Your task to perform on an android device: Clear the cart on target.com. Add alienware area 51 to the cart on target.com Image 0: 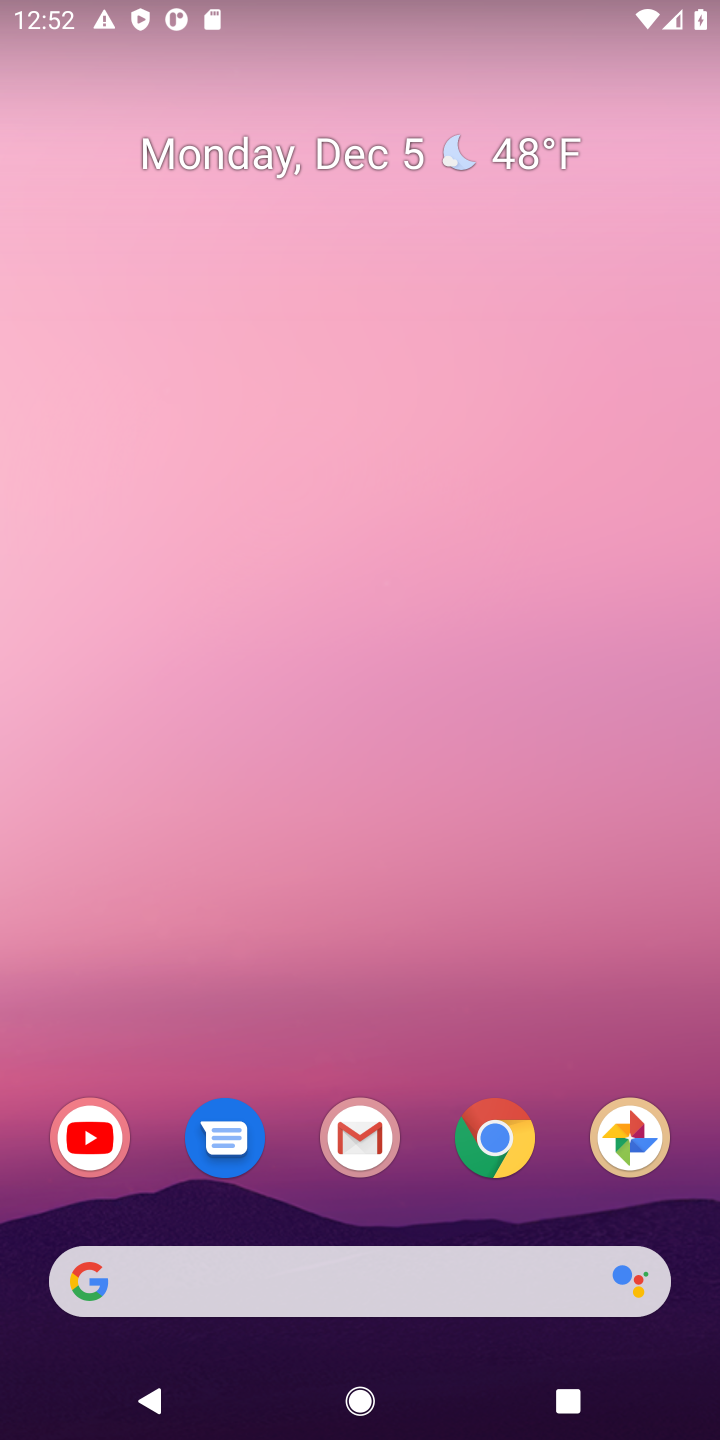
Step 0: click (504, 1159)
Your task to perform on an android device: Clear the cart on target.com. Add alienware area 51 to the cart on target.com Image 1: 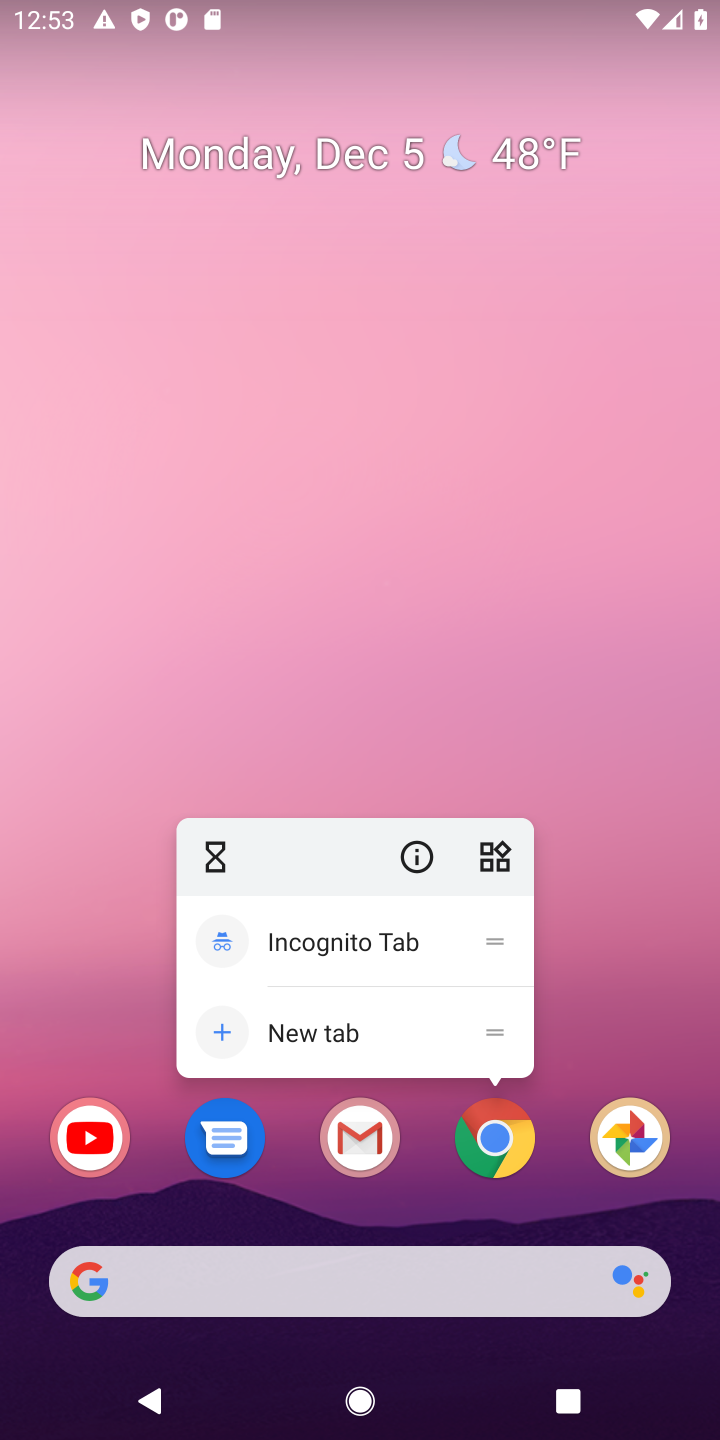
Step 1: click (493, 1150)
Your task to perform on an android device: Clear the cart on target.com. Add alienware area 51 to the cart on target.com Image 2: 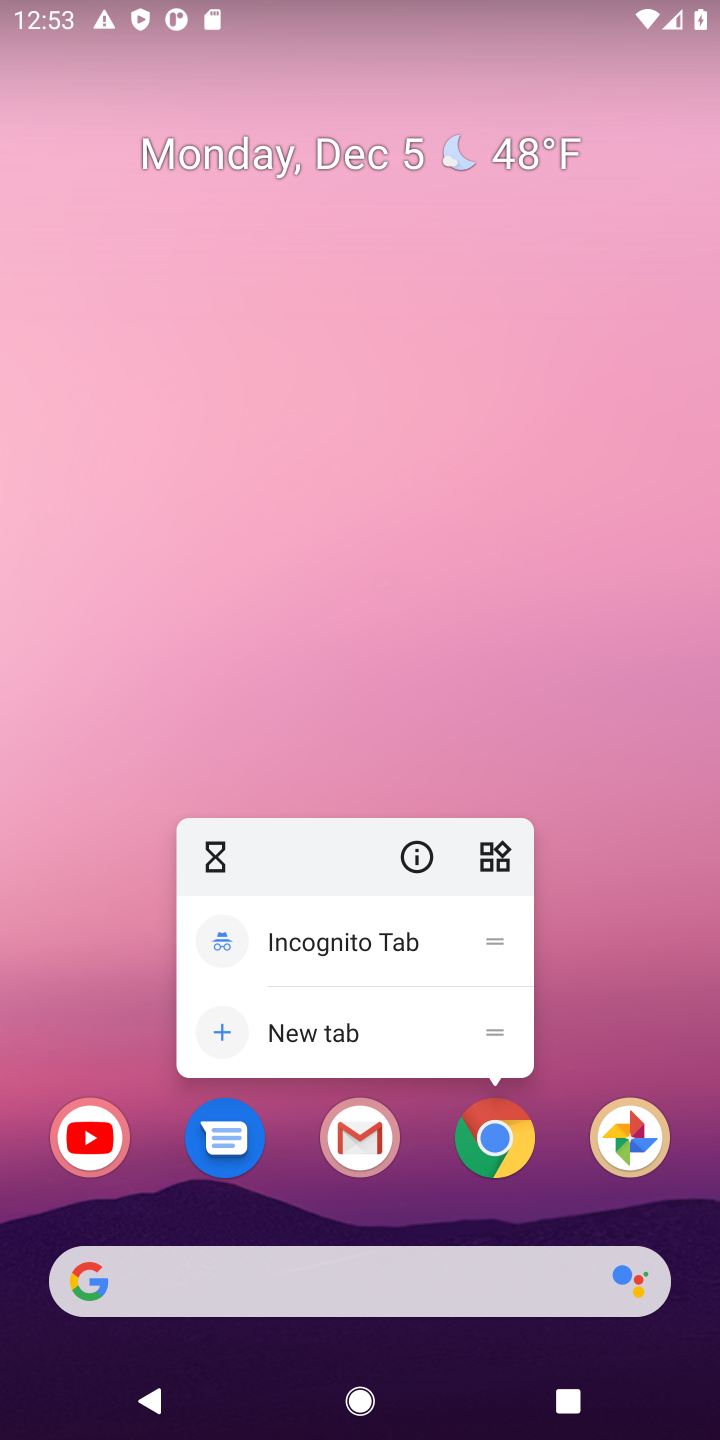
Step 2: click (495, 1115)
Your task to perform on an android device: Clear the cart on target.com. Add alienware area 51 to the cart on target.com Image 3: 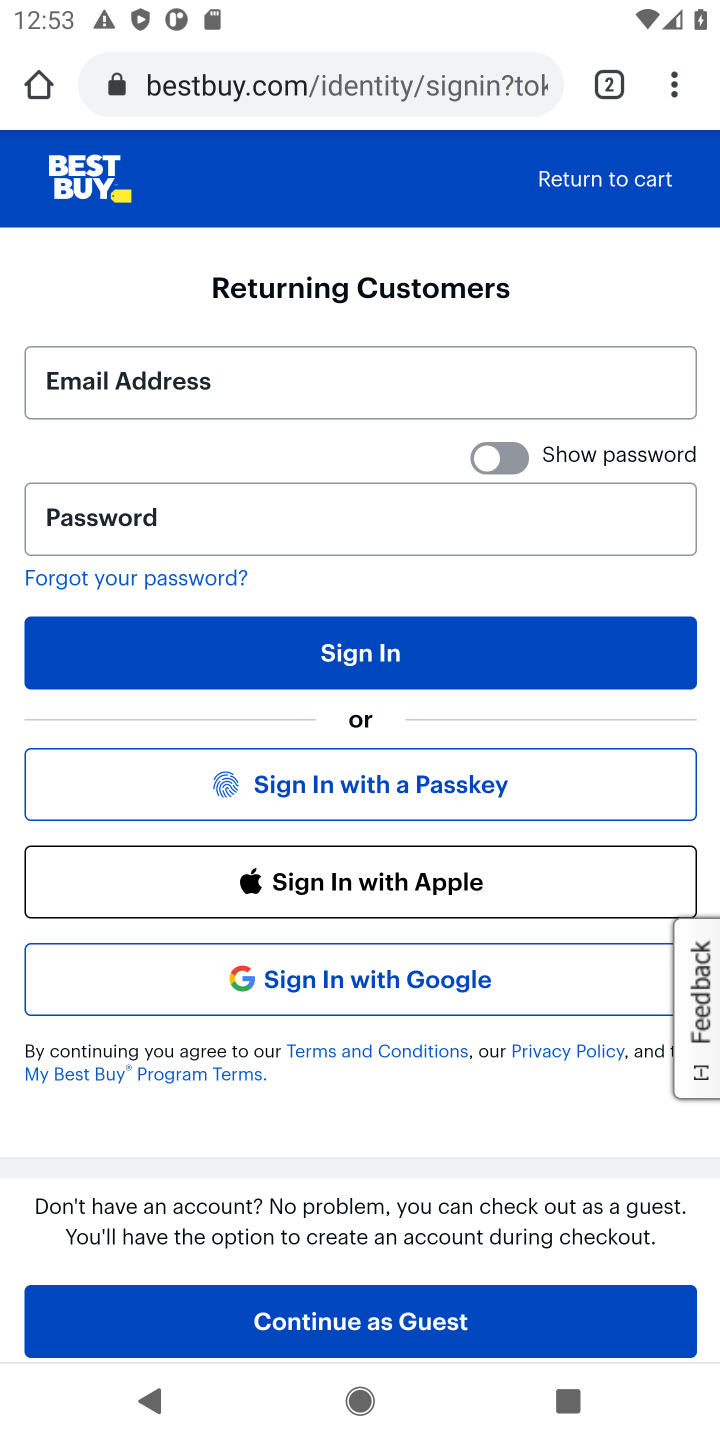
Step 3: click (398, 92)
Your task to perform on an android device: Clear the cart on target.com. Add alienware area 51 to the cart on target.com Image 4: 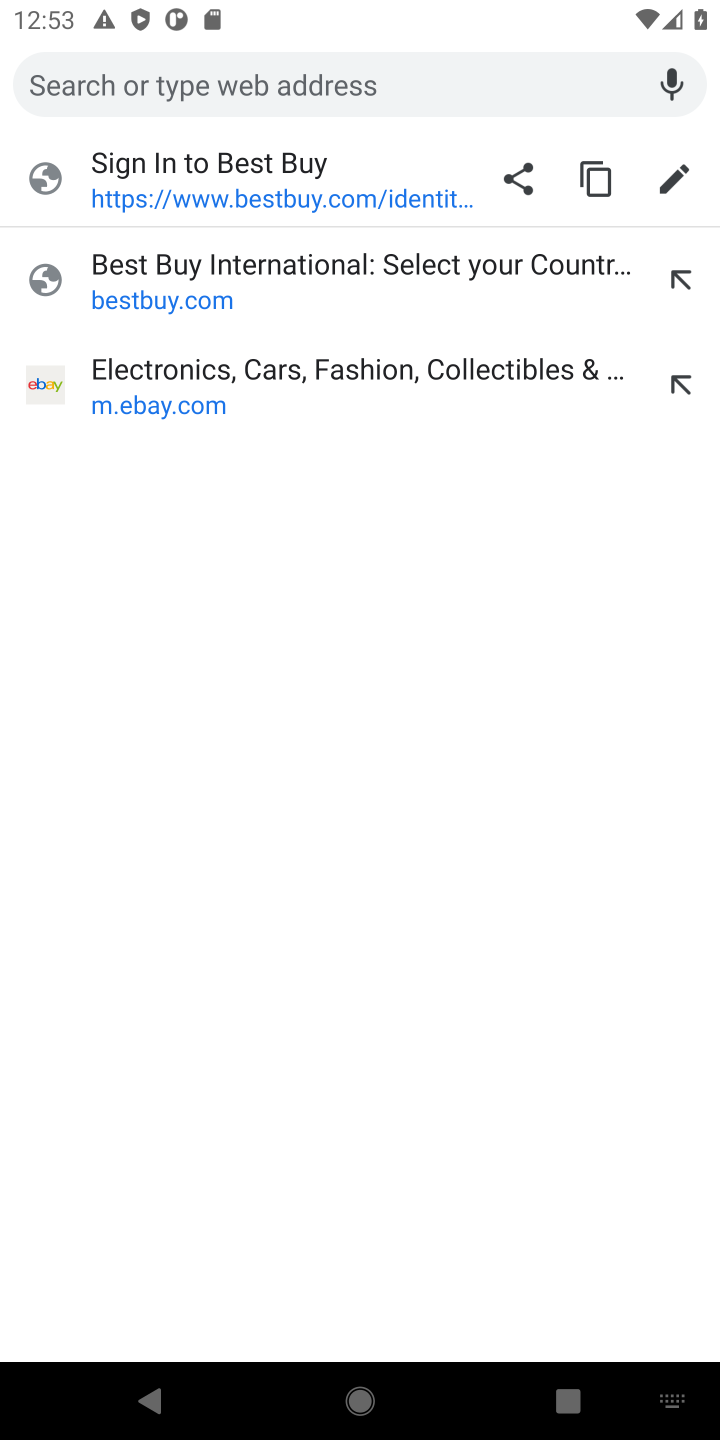
Step 4: type "target"
Your task to perform on an android device: Clear the cart on target.com. Add alienware area 51 to the cart on target.com Image 5: 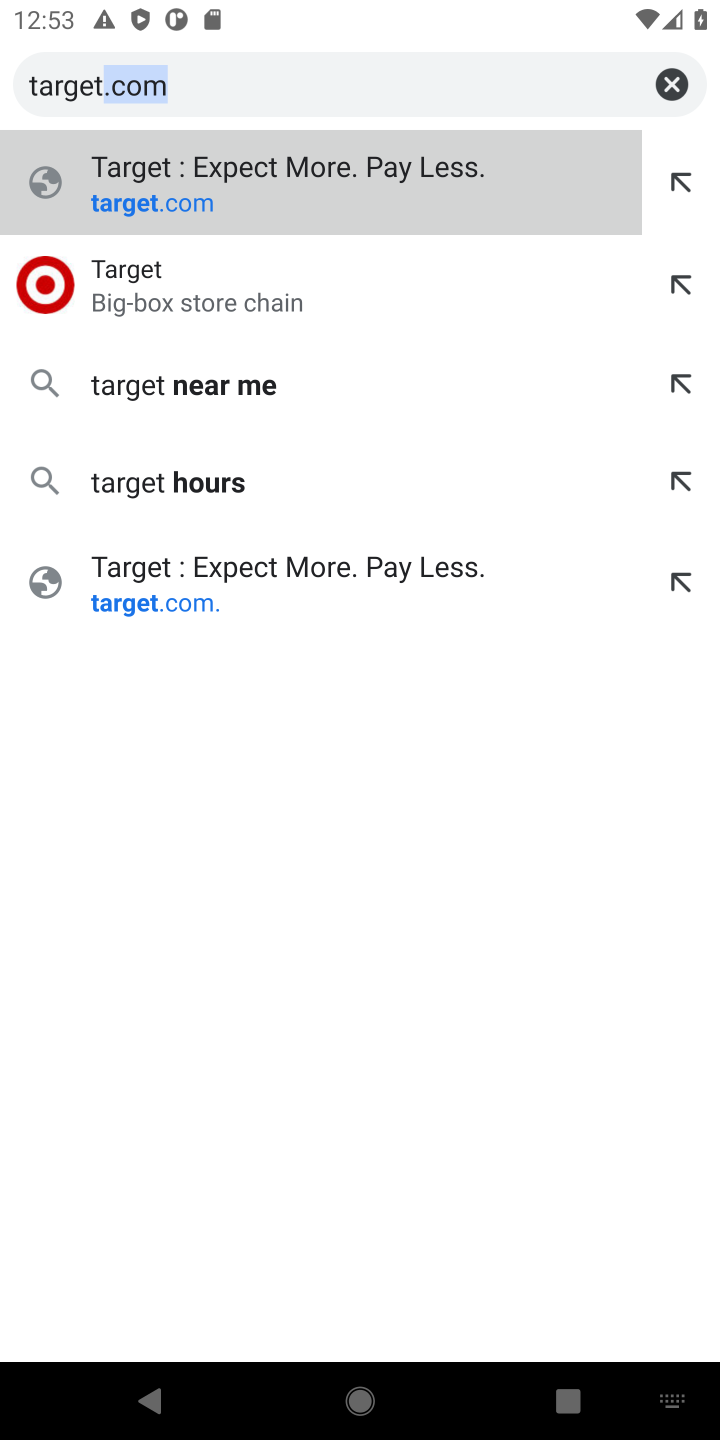
Step 5: click (213, 300)
Your task to perform on an android device: Clear the cart on target.com. Add alienware area 51 to the cart on target.com Image 6: 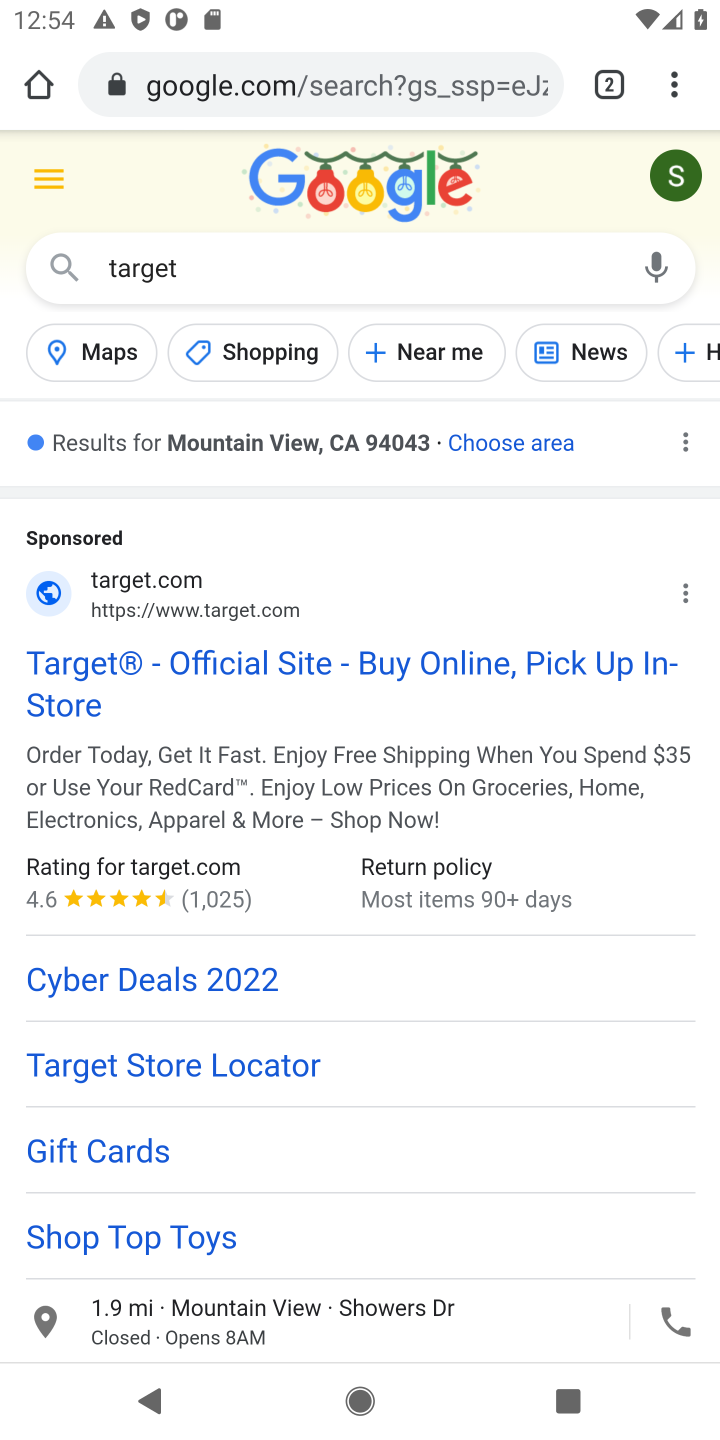
Step 6: click (183, 693)
Your task to perform on an android device: Clear the cart on target.com. Add alienware area 51 to the cart on target.com Image 7: 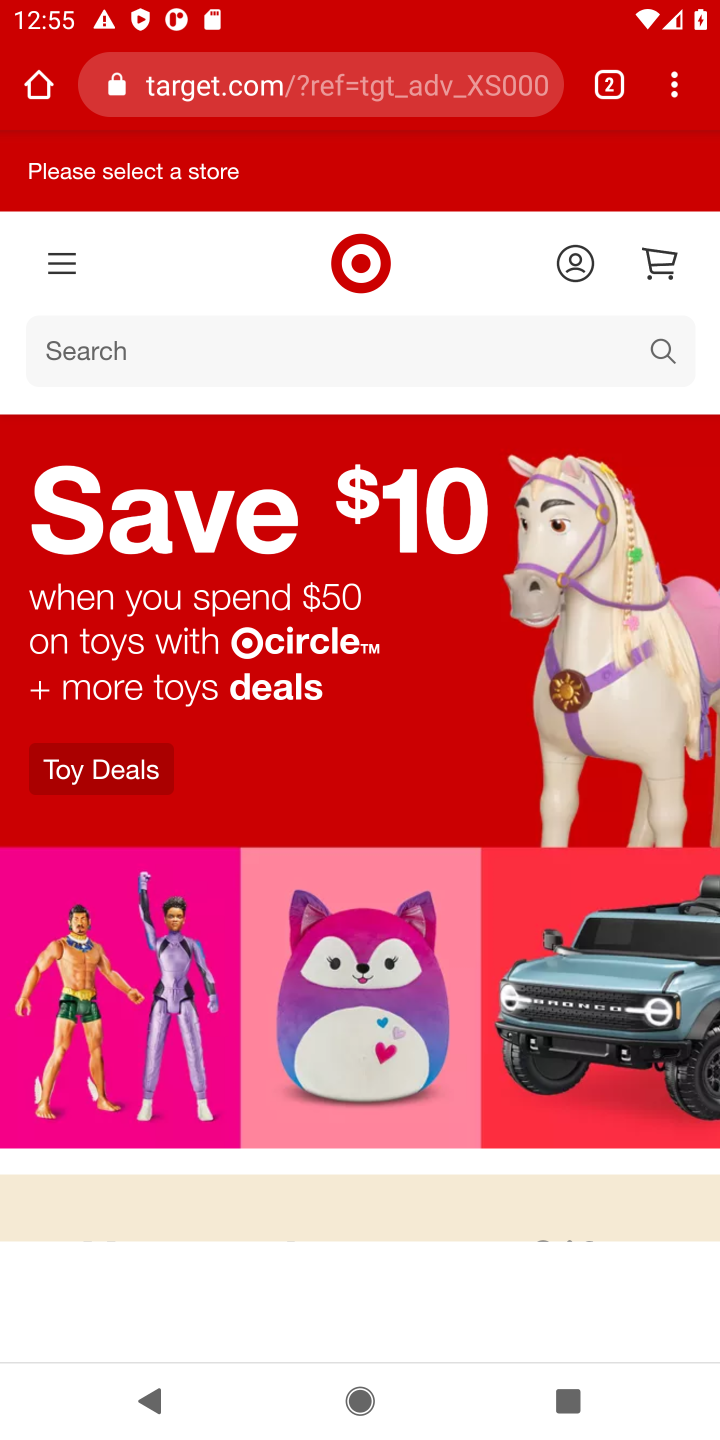
Step 7: click (671, 261)
Your task to perform on an android device: Clear the cart on target.com. Add alienware area 51 to the cart on target.com Image 8: 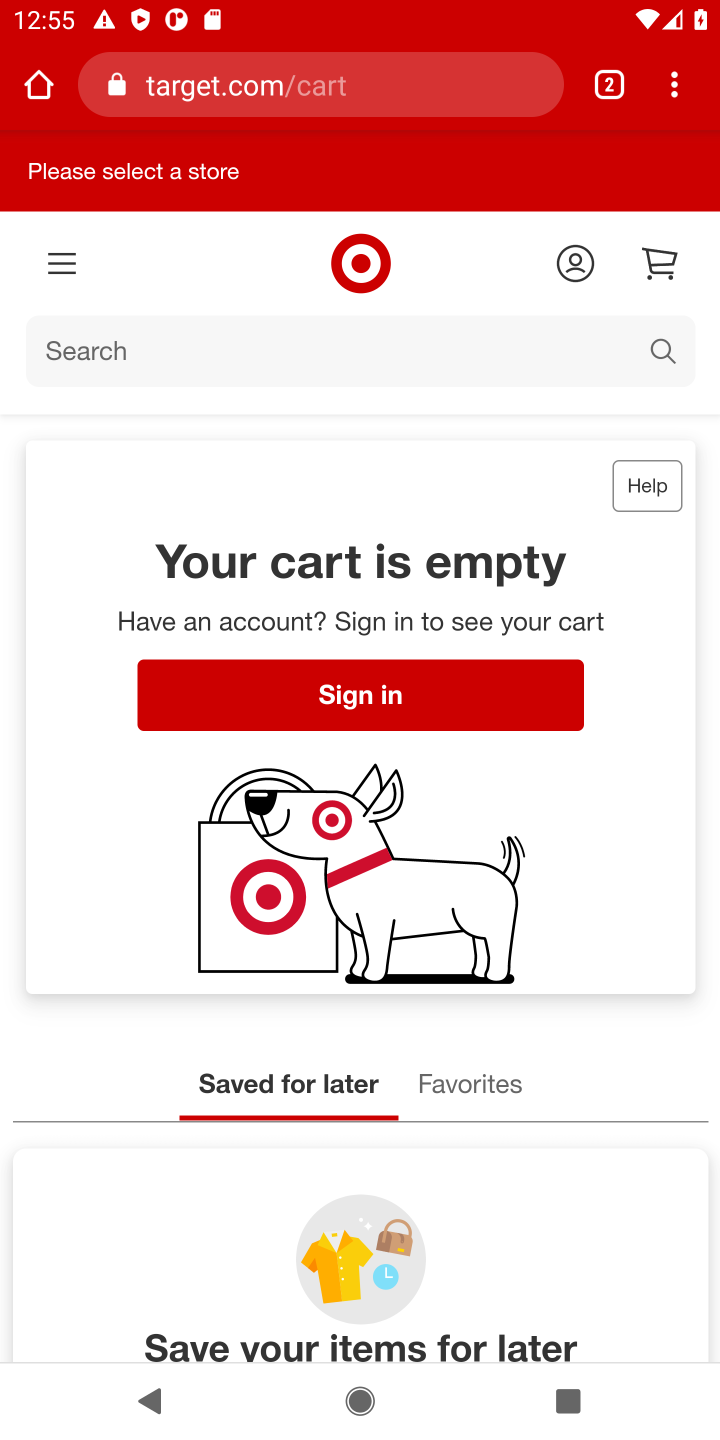
Step 8: click (505, 369)
Your task to perform on an android device: Clear the cart on target.com. Add alienware area 51 to the cart on target.com Image 9: 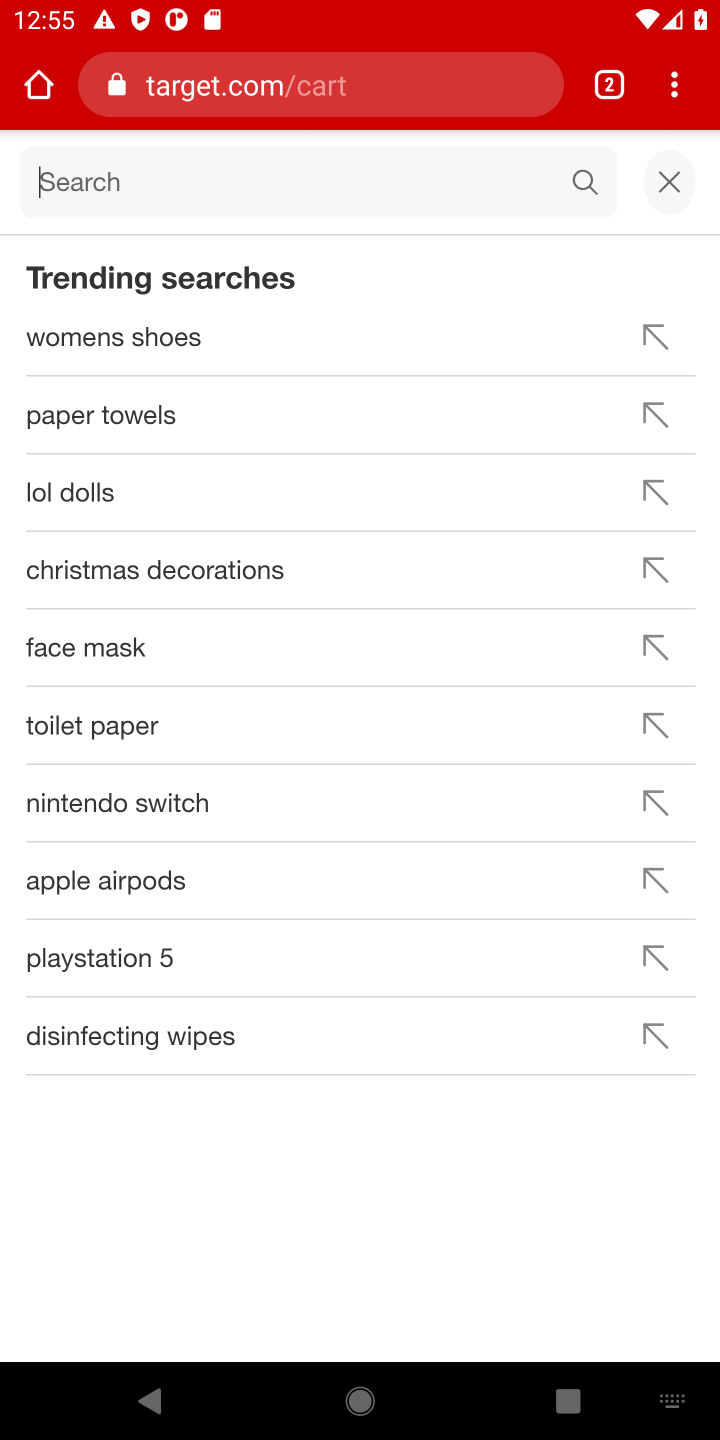
Step 9: click (321, 200)
Your task to perform on an android device: Clear the cart on target.com. Add alienware area 51 to the cart on target.com Image 10: 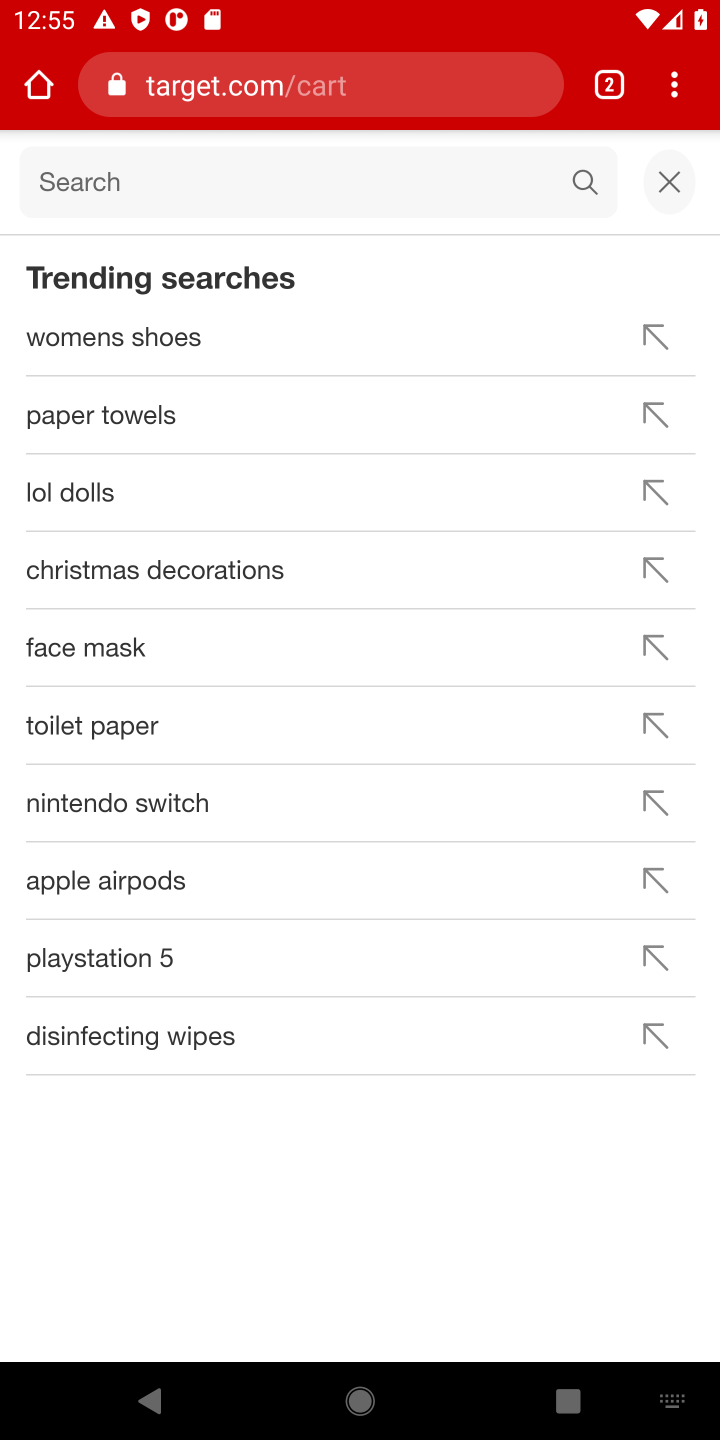
Step 10: type "alienware area 51"
Your task to perform on an android device: Clear the cart on target.com. Add alienware area 51 to the cart on target.com Image 11: 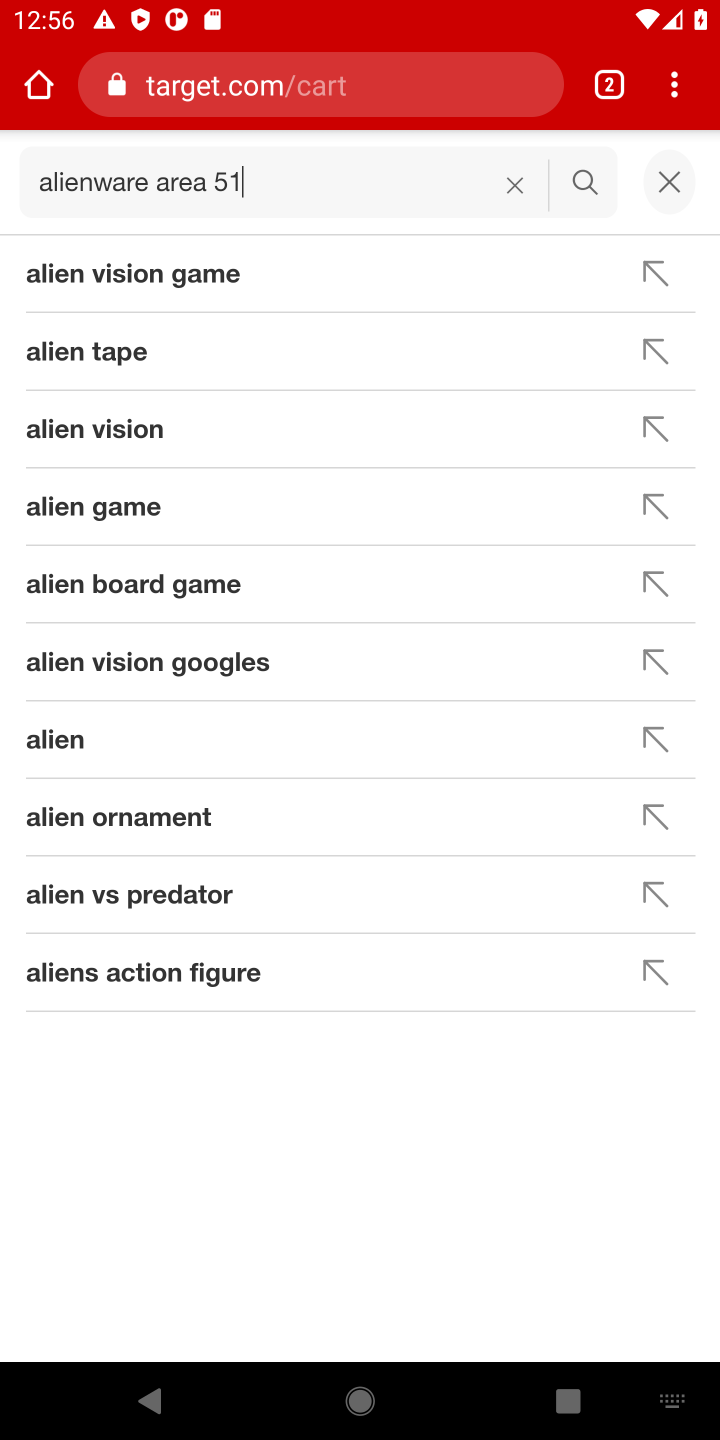
Step 11: click (592, 181)
Your task to perform on an android device: Clear the cart on target.com. Add alienware area 51 to the cart on target.com Image 12: 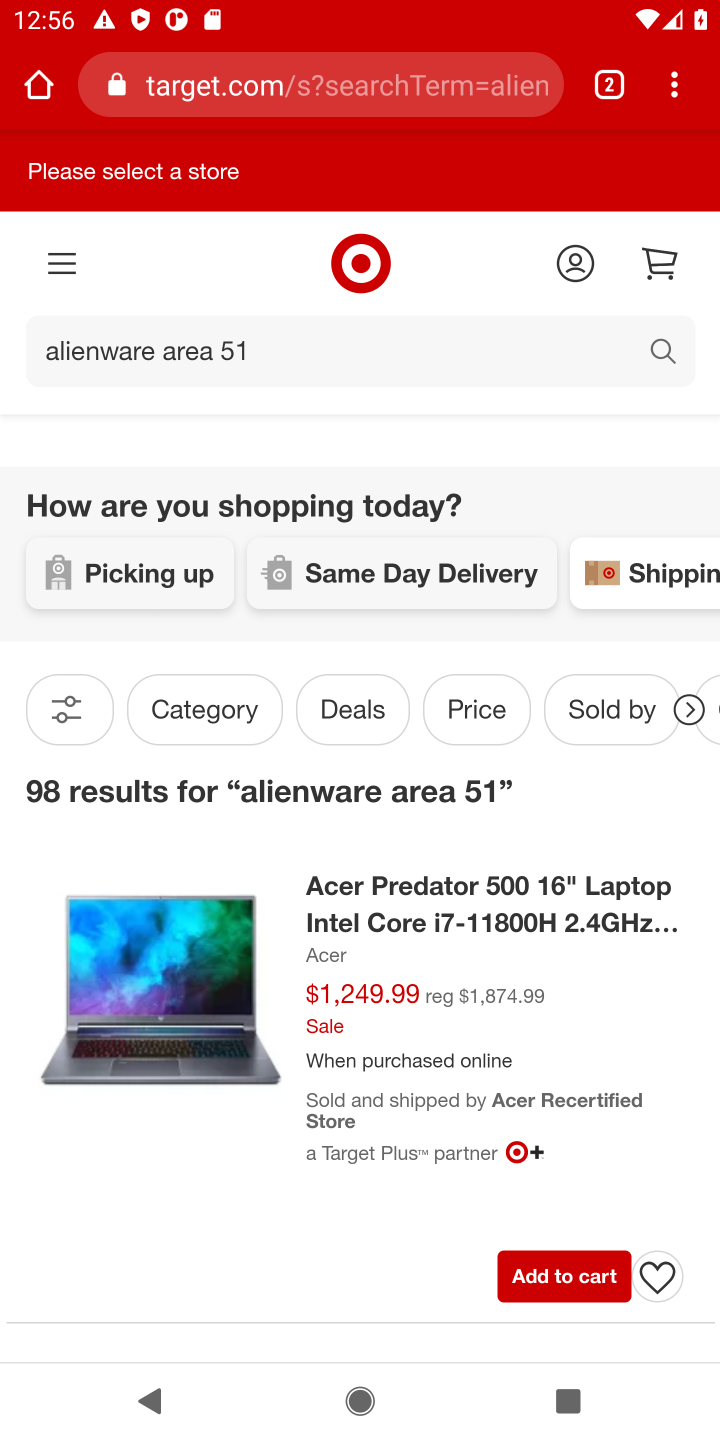
Step 12: task complete